Your task to perform on an android device: Play the last video I watched on Youtube Image 0: 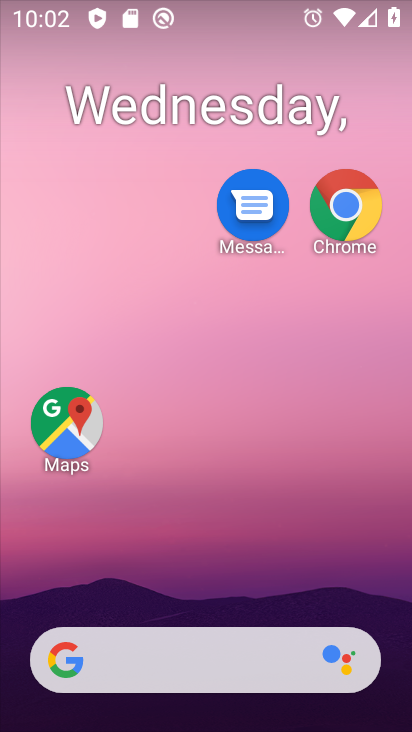
Step 0: drag from (196, 594) to (44, 0)
Your task to perform on an android device: Play the last video I watched on Youtube Image 1: 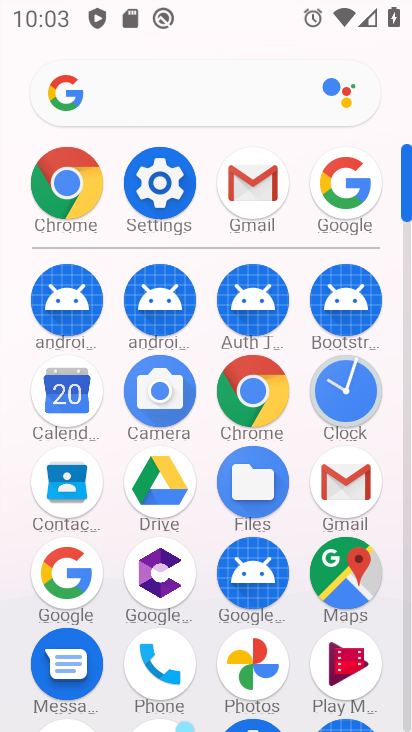
Step 1: drag from (229, 501) to (267, 155)
Your task to perform on an android device: Play the last video I watched on Youtube Image 2: 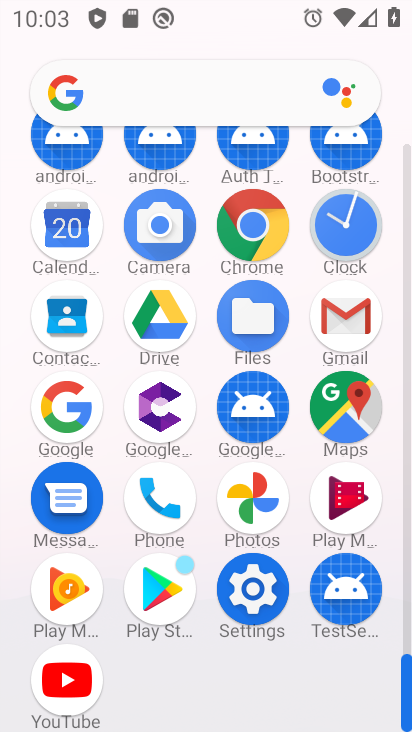
Step 2: click (69, 686)
Your task to perform on an android device: Play the last video I watched on Youtube Image 3: 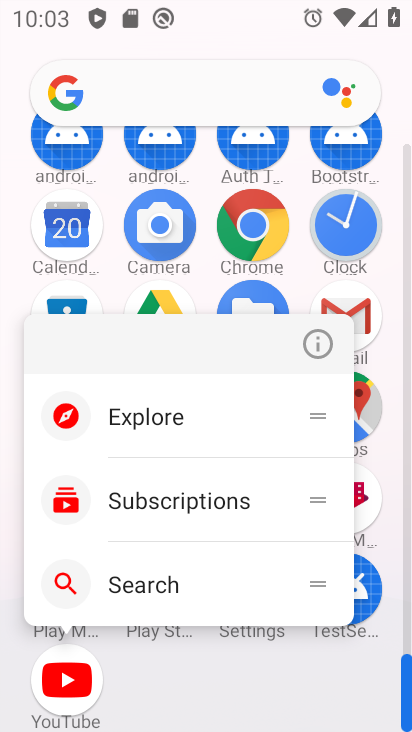
Step 3: click (325, 337)
Your task to perform on an android device: Play the last video I watched on Youtube Image 4: 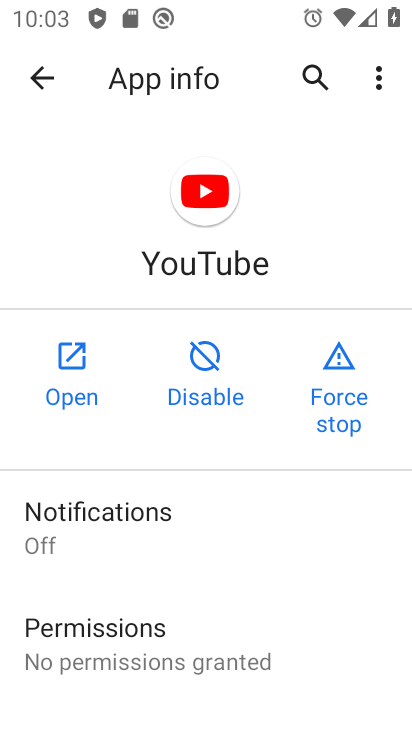
Step 4: click (77, 357)
Your task to perform on an android device: Play the last video I watched on Youtube Image 5: 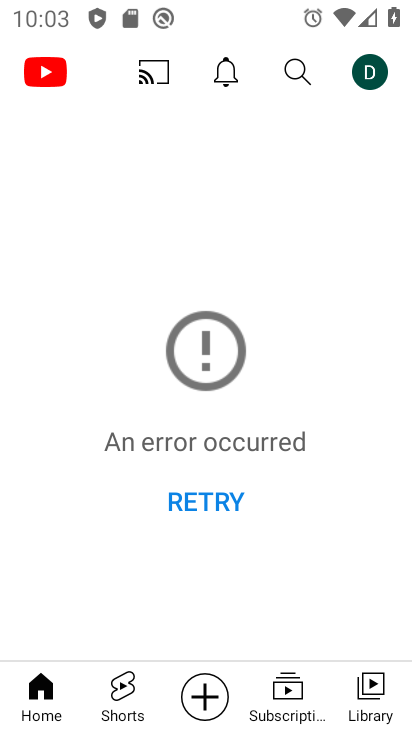
Step 5: click (358, 684)
Your task to perform on an android device: Play the last video I watched on Youtube Image 6: 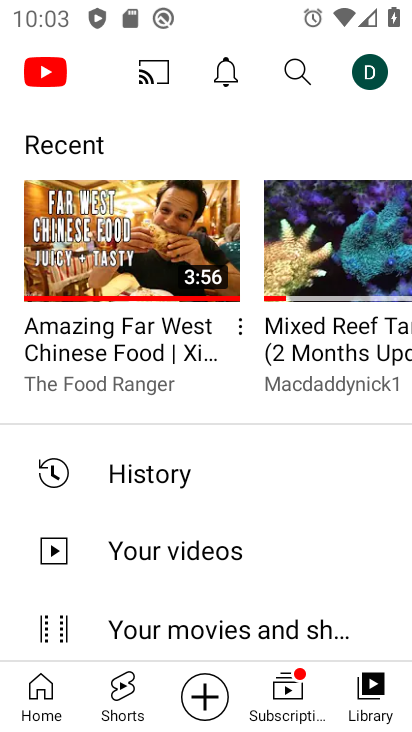
Step 6: click (126, 235)
Your task to perform on an android device: Play the last video I watched on Youtube Image 7: 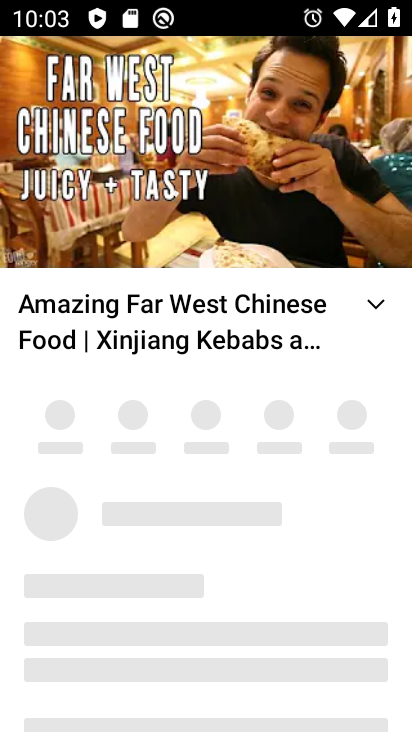
Step 7: task complete